Your task to perform on an android device: turn off picture-in-picture Image 0: 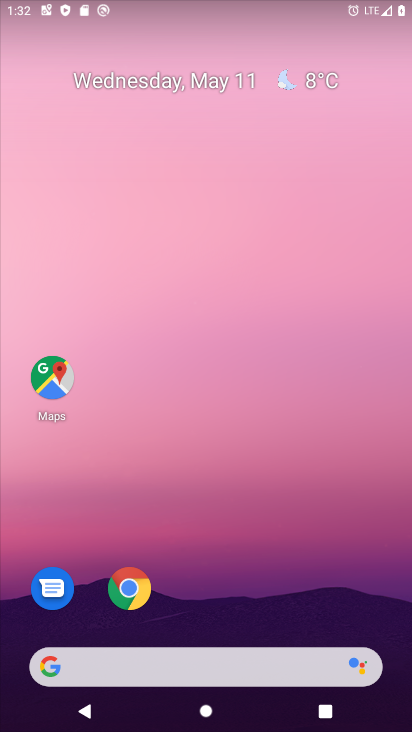
Step 0: click (135, 587)
Your task to perform on an android device: turn off picture-in-picture Image 1: 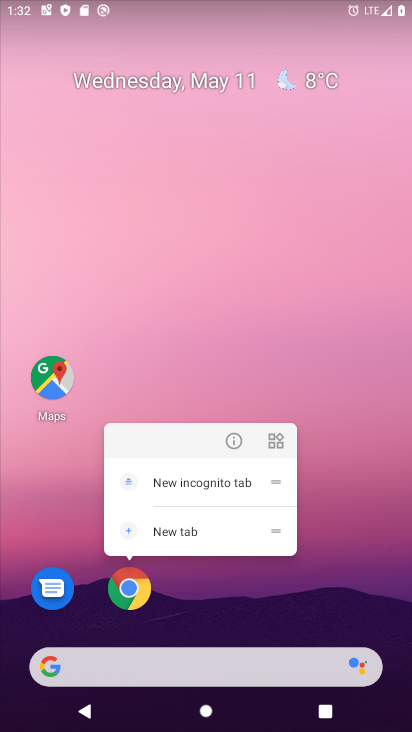
Step 1: click (241, 434)
Your task to perform on an android device: turn off picture-in-picture Image 2: 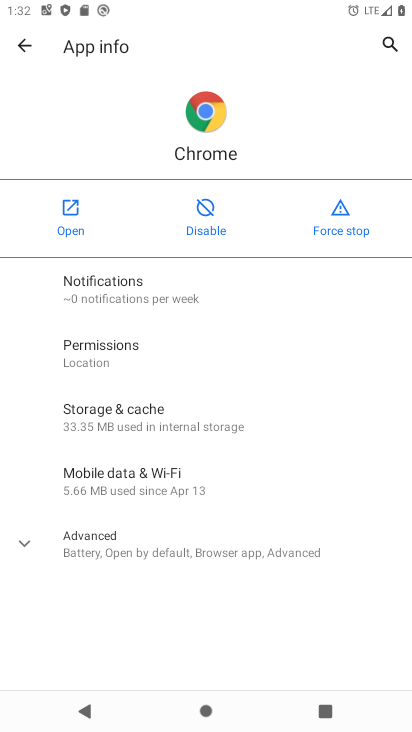
Step 2: click (28, 551)
Your task to perform on an android device: turn off picture-in-picture Image 3: 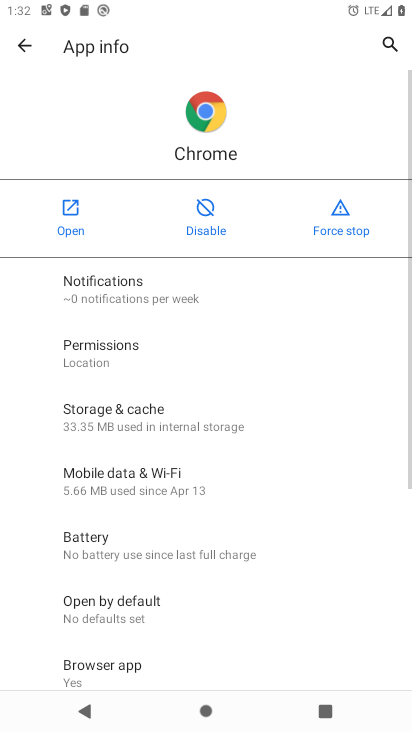
Step 3: drag from (208, 608) to (207, 299)
Your task to perform on an android device: turn off picture-in-picture Image 4: 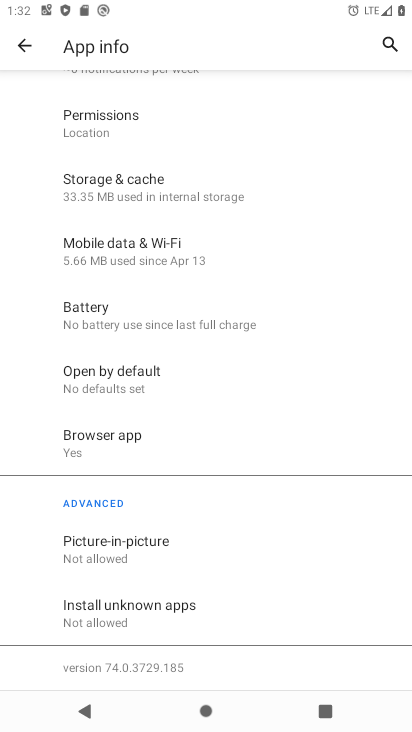
Step 4: click (107, 550)
Your task to perform on an android device: turn off picture-in-picture Image 5: 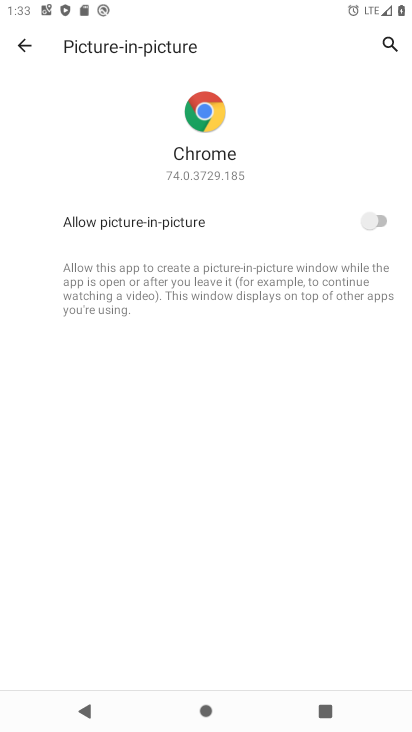
Step 5: task complete